Your task to perform on an android device: Open Reddit.com Image 0: 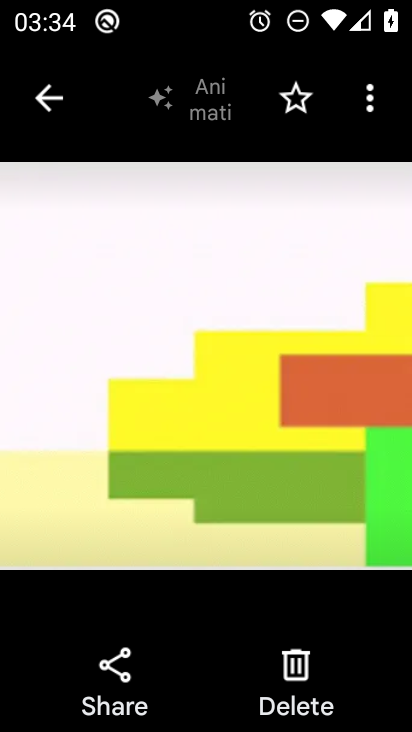
Step 0: press home button
Your task to perform on an android device: Open Reddit.com Image 1: 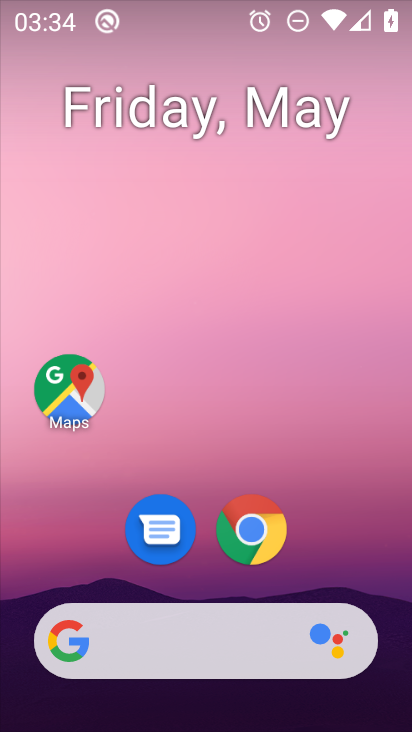
Step 1: drag from (398, 697) to (352, 285)
Your task to perform on an android device: Open Reddit.com Image 2: 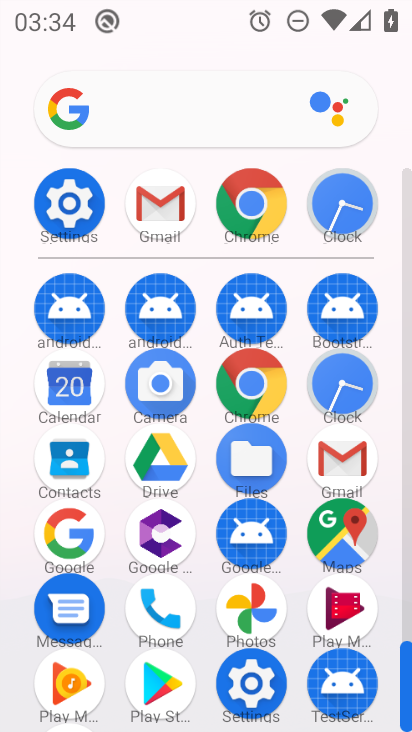
Step 2: click (243, 204)
Your task to perform on an android device: Open Reddit.com Image 3: 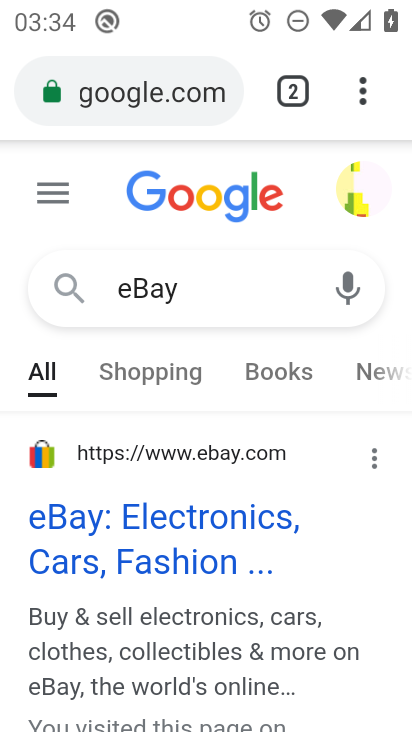
Step 3: click (233, 94)
Your task to perform on an android device: Open Reddit.com Image 4: 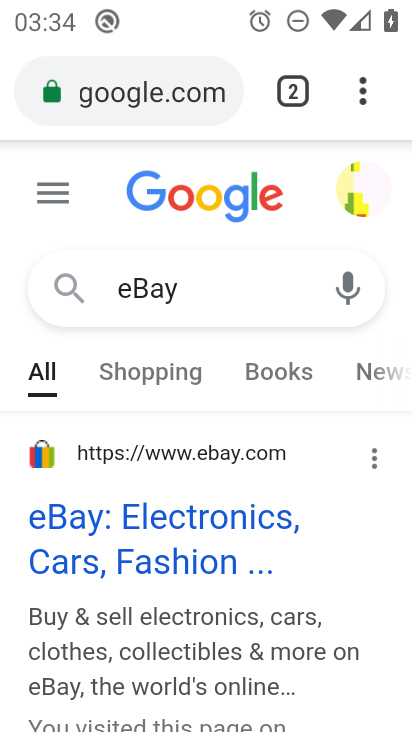
Step 4: click (222, 83)
Your task to perform on an android device: Open Reddit.com Image 5: 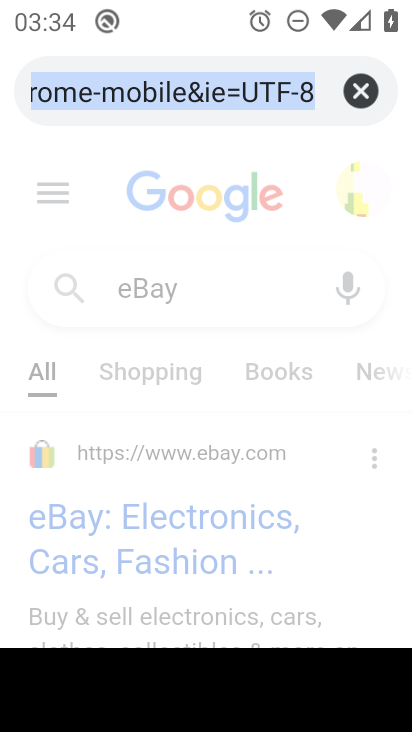
Step 5: click (371, 86)
Your task to perform on an android device: Open Reddit.com Image 6: 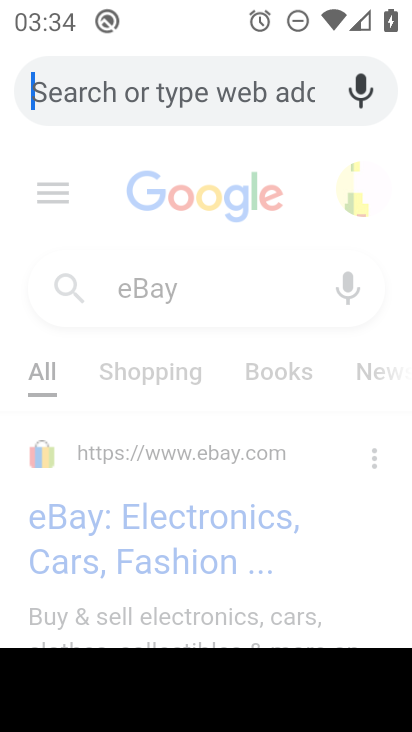
Step 6: type "Reddit.com"
Your task to perform on an android device: Open Reddit.com Image 7: 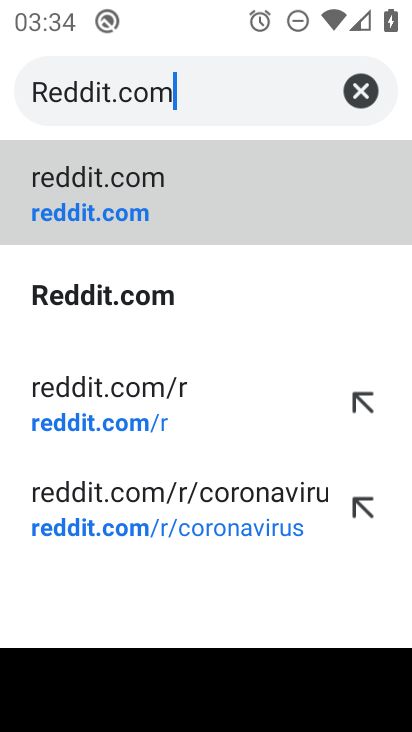
Step 7: click (104, 285)
Your task to perform on an android device: Open Reddit.com Image 8: 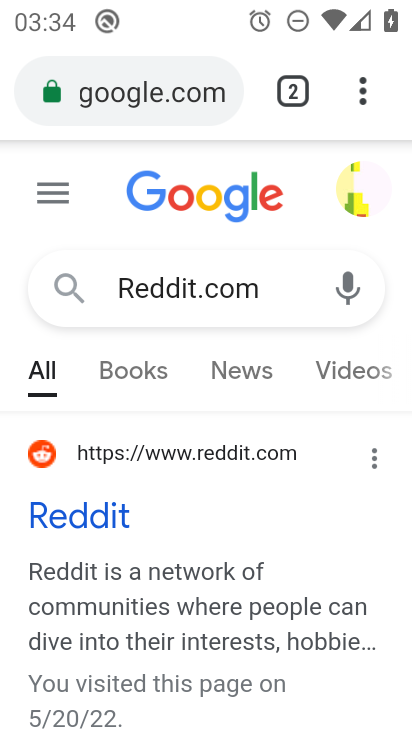
Step 8: task complete